Your task to perform on an android device: Show me productivity apps on the Play Store Image 0: 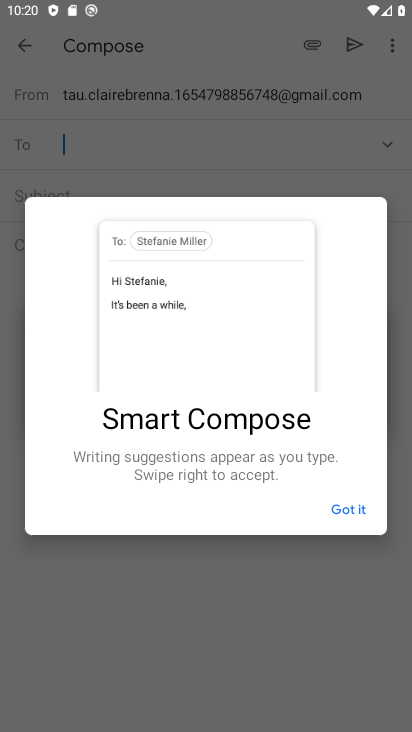
Step 0: press home button
Your task to perform on an android device: Show me productivity apps on the Play Store Image 1: 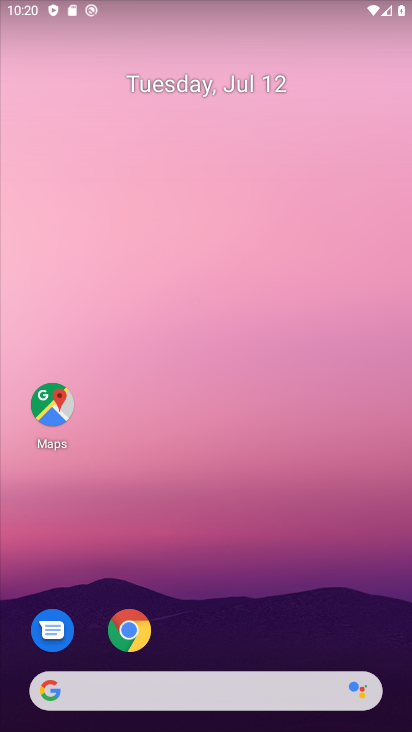
Step 1: drag from (205, 663) to (306, 125)
Your task to perform on an android device: Show me productivity apps on the Play Store Image 2: 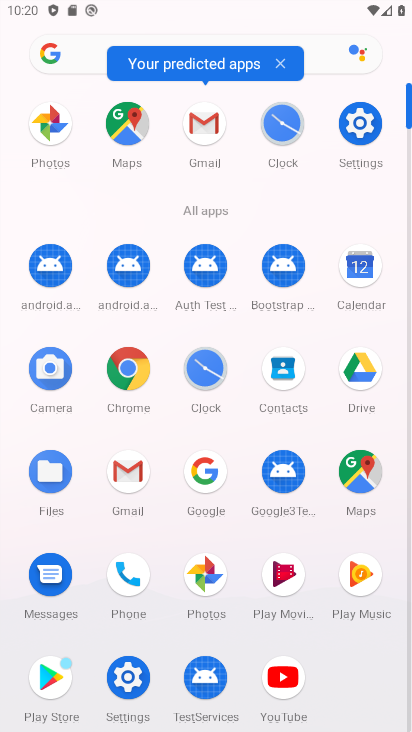
Step 2: click (54, 679)
Your task to perform on an android device: Show me productivity apps on the Play Store Image 3: 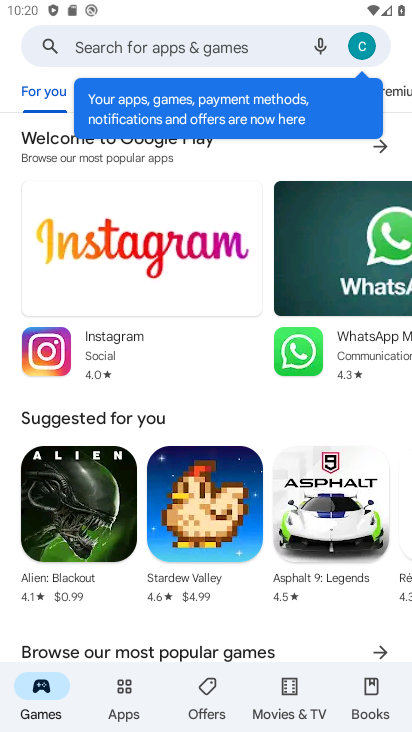
Step 3: click (133, 706)
Your task to perform on an android device: Show me productivity apps on the Play Store Image 4: 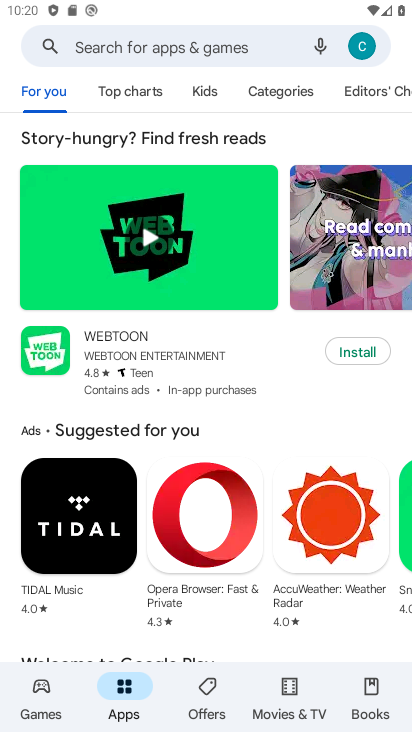
Step 4: click (298, 92)
Your task to perform on an android device: Show me productivity apps on the Play Store Image 5: 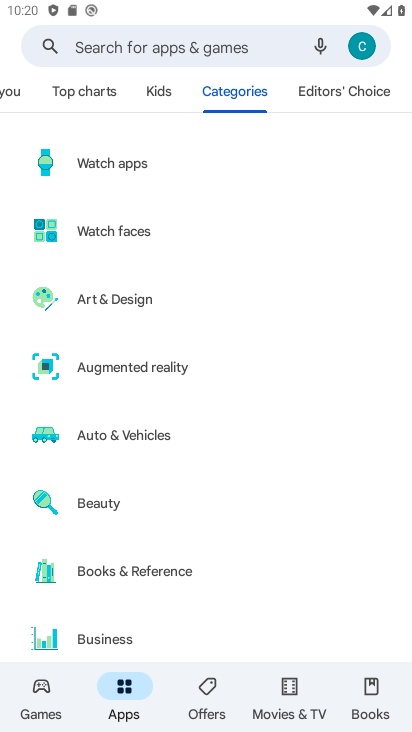
Step 5: drag from (170, 556) to (262, 145)
Your task to perform on an android device: Show me productivity apps on the Play Store Image 6: 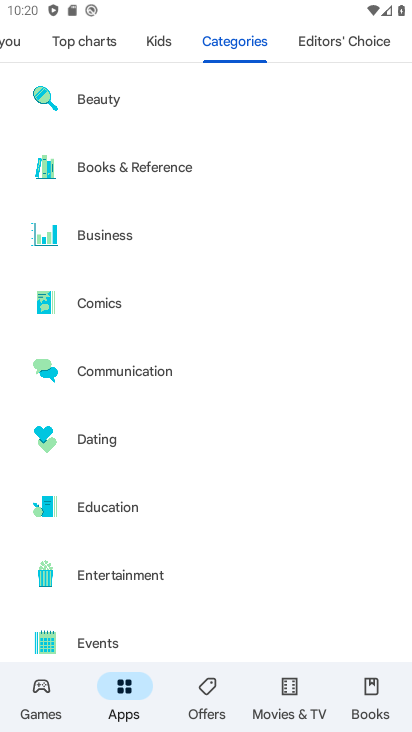
Step 6: drag from (181, 549) to (292, 39)
Your task to perform on an android device: Show me productivity apps on the Play Store Image 7: 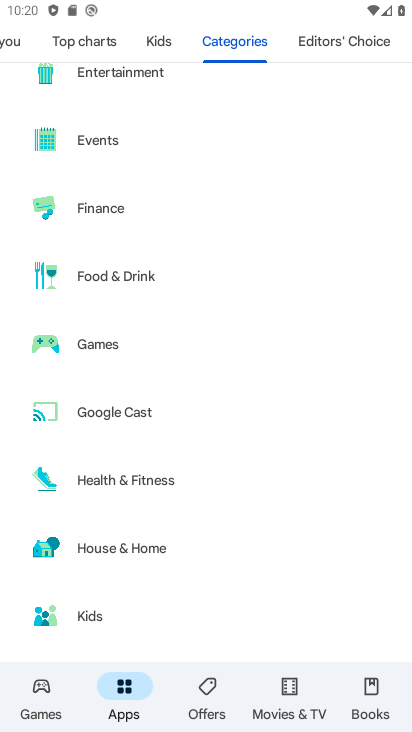
Step 7: drag from (150, 641) to (255, 175)
Your task to perform on an android device: Show me productivity apps on the Play Store Image 8: 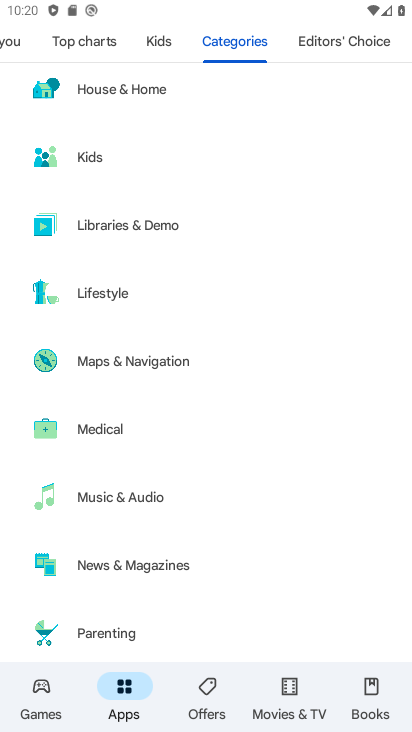
Step 8: drag from (177, 588) to (270, 225)
Your task to perform on an android device: Show me productivity apps on the Play Store Image 9: 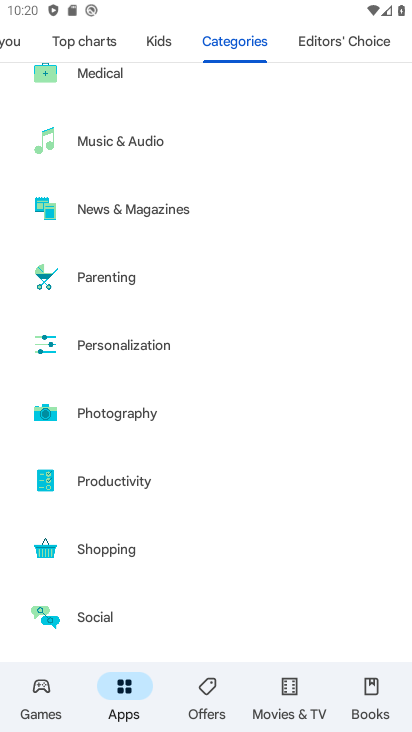
Step 9: click (141, 497)
Your task to perform on an android device: Show me productivity apps on the Play Store Image 10: 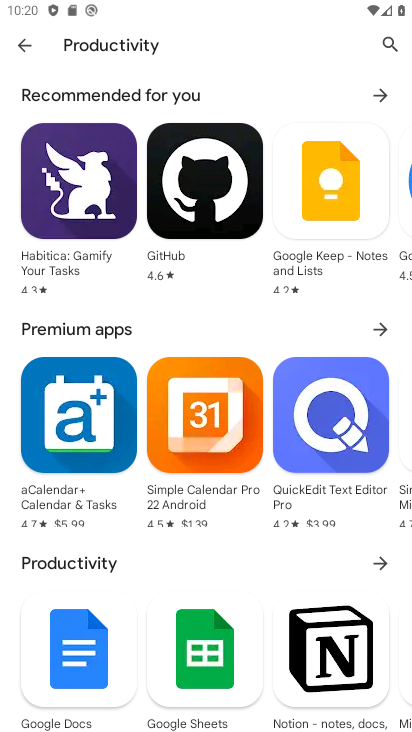
Step 10: task complete